Your task to perform on an android device: Go to settings Image 0: 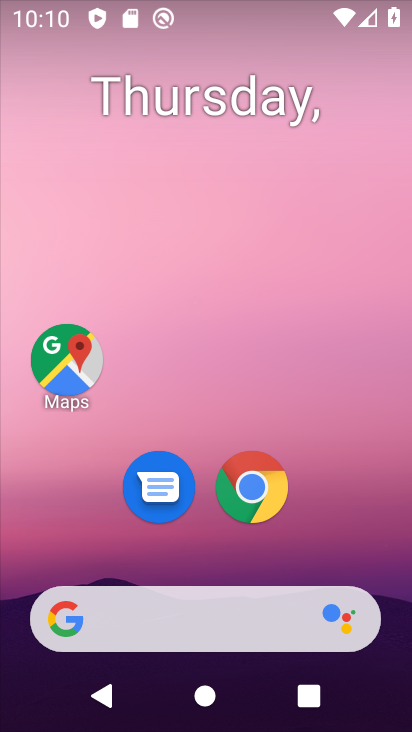
Step 0: drag from (342, 512) to (197, 238)
Your task to perform on an android device: Go to settings Image 1: 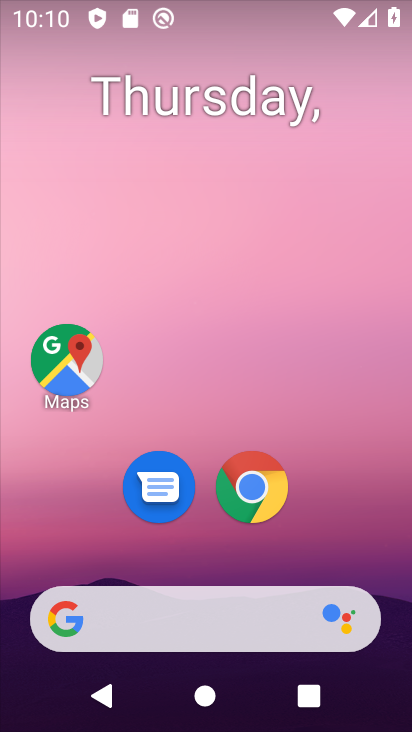
Step 1: drag from (355, 497) to (219, 221)
Your task to perform on an android device: Go to settings Image 2: 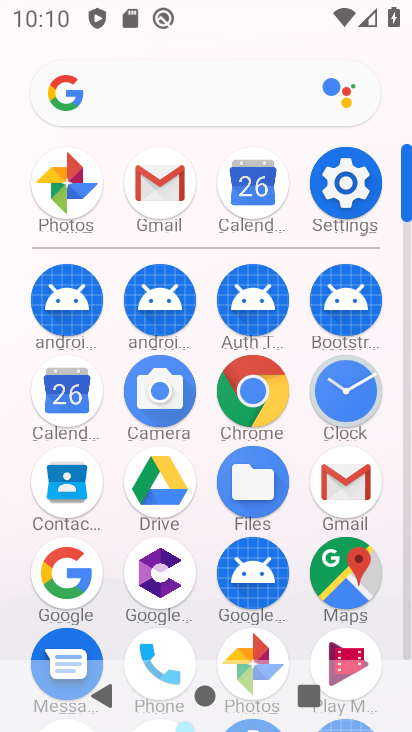
Step 2: click (346, 194)
Your task to perform on an android device: Go to settings Image 3: 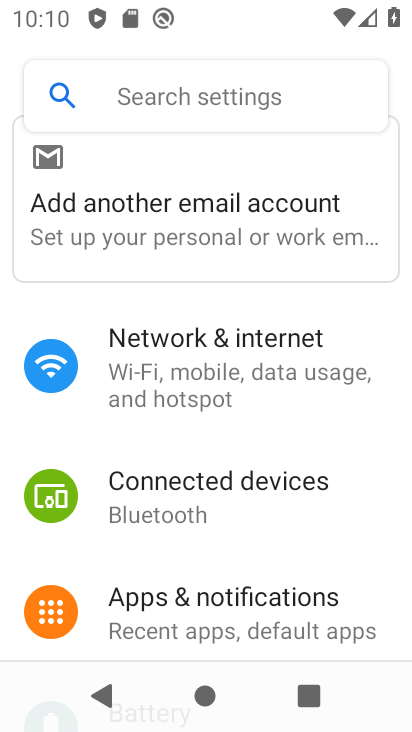
Step 3: task complete